Your task to perform on an android device: Go to battery settings Image 0: 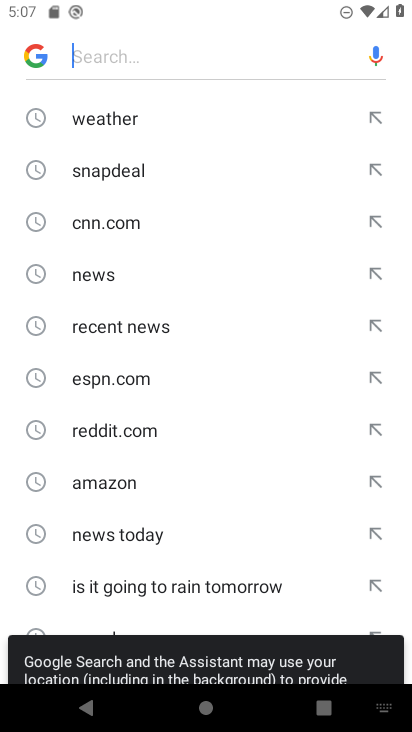
Step 0: press back button
Your task to perform on an android device: Go to battery settings Image 1: 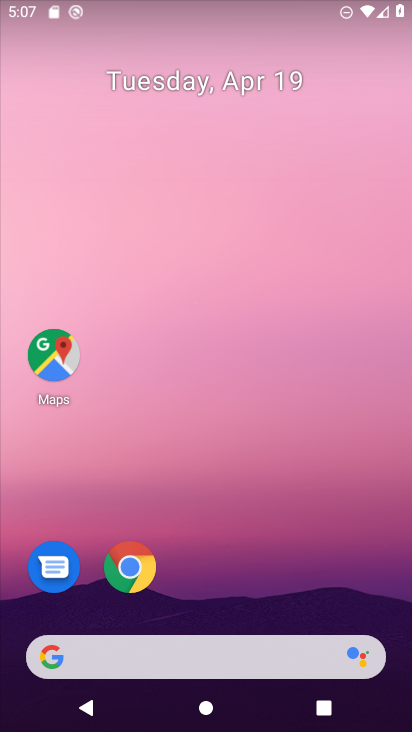
Step 1: drag from (270, 551) to (0, 95)
Your task to perform on an android device: Go to battery settings Image 2: 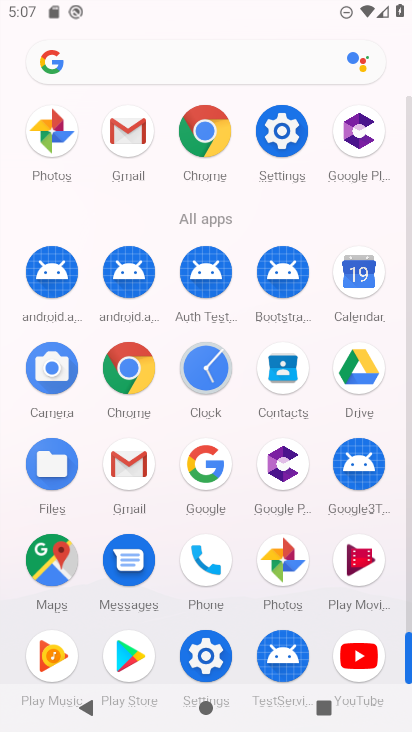
Step 2: drag from (5, 510) to (4, 264)
Your task to perform on an android device: Go to battery settings Image 3: 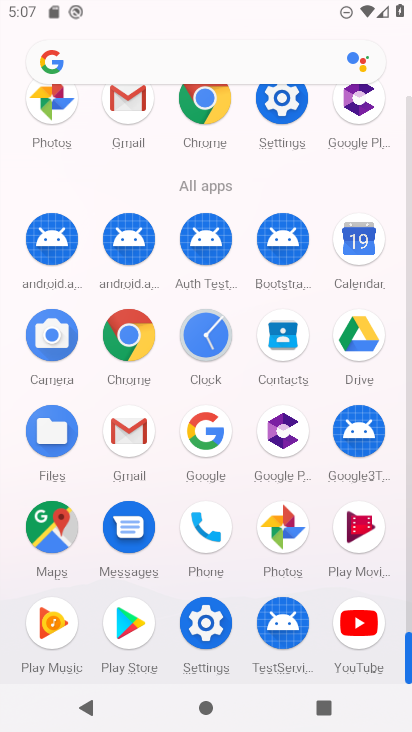
Step 3: click (209, 623)
Your task to perform on an android device: Go to battery settings Image 4: 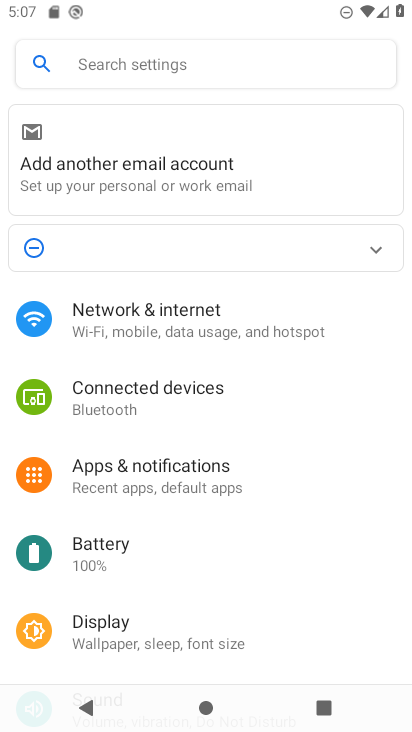
Step 4: click (132, 562)
Your task to perform on an android device: Go to battery settings Image 5: 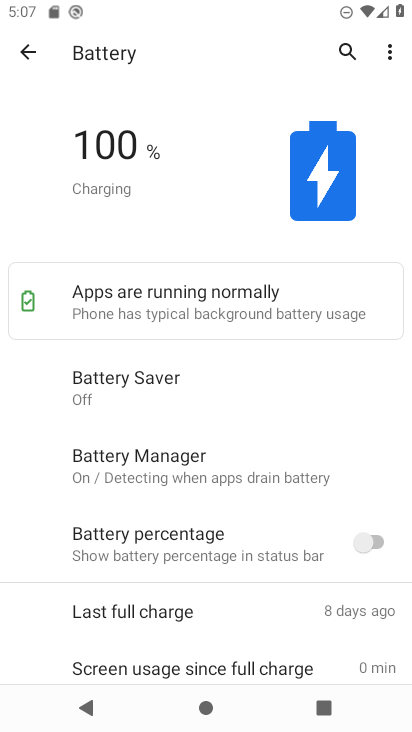
Step 5: task complete